Your task to perform on an android device: turn on priority inbox in the gmail app Image 0: 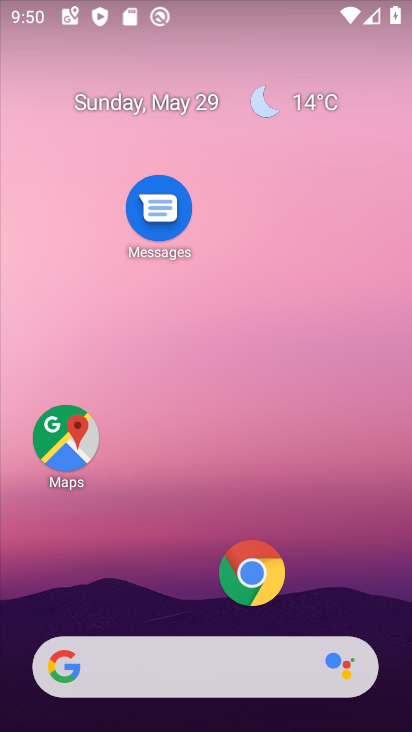
Step 0: drag from (148, 599) to (186, 41)
Your task to perform on an android device: turn on priority inbox in the gmail app Image 1: 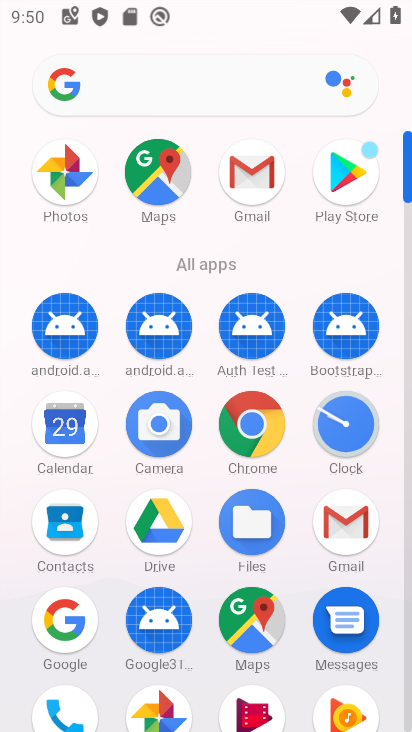
Step 1: click (266, 196)
Your task to perform on an android device: turn on priority inbox in the gmail app Image 2: 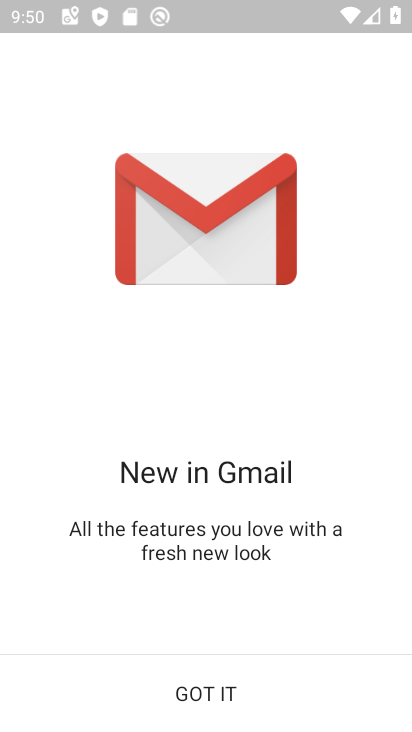
Step 2: click (213, 706)
Your task to perform on an android device: turn on priority inbox in the gmail app Image 3: 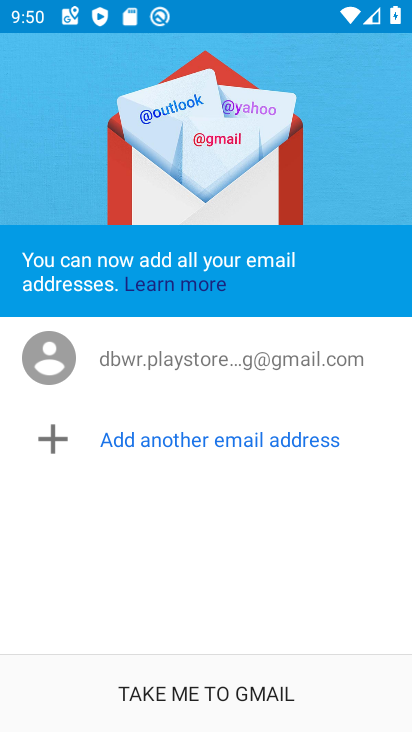
Step 3: click (213, 706)
Your task to perform on an android device: turn on priority inbox in the gmail app Image 4: 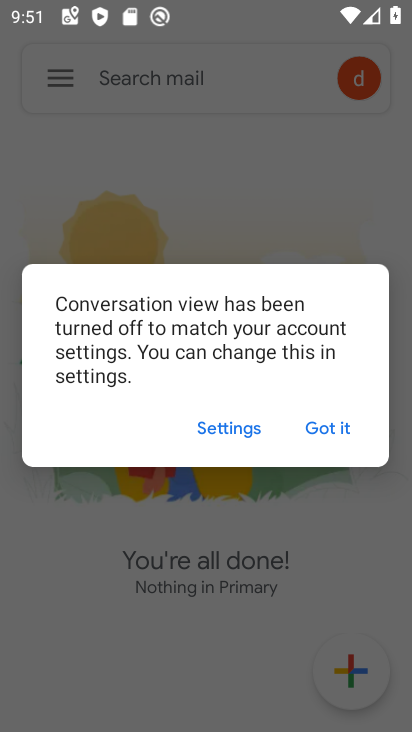
Step 4: click (330, 443)
Your task to perform on an android device: turn on priority inbox in the gmail app Image 5: 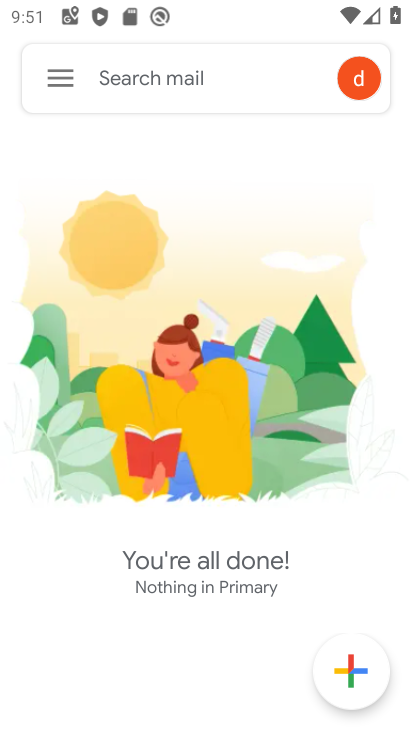
Step 5: click (65, 77)
Your task to perform on an android device: turn on priority inbox in the gmail app Image 6: 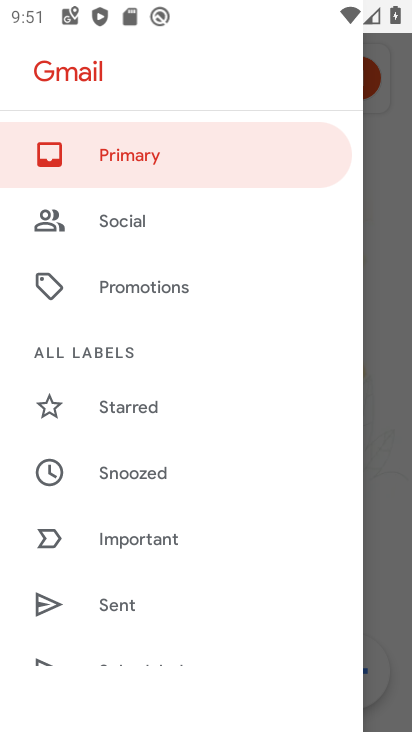
Step 6: drag from (126, 644) to (173, 257)
Your task to perform on an android device: turn on priority inbox in the gmail app Image 7: 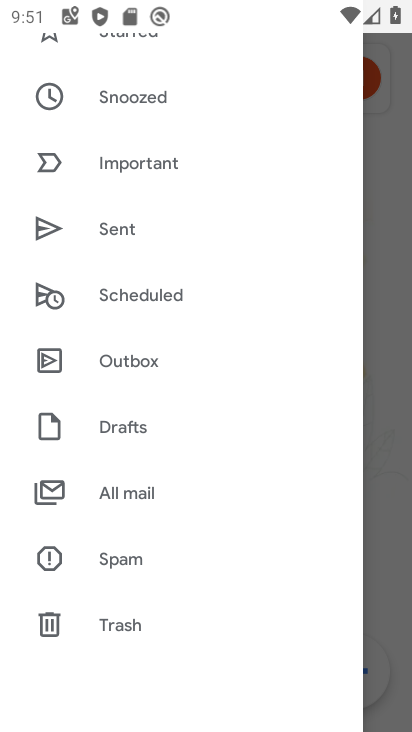
Step 7: drag from (193, 166) to (238, 675)
Your task to perform on an android device: turn on priority inbox in the gmail app Image 8: 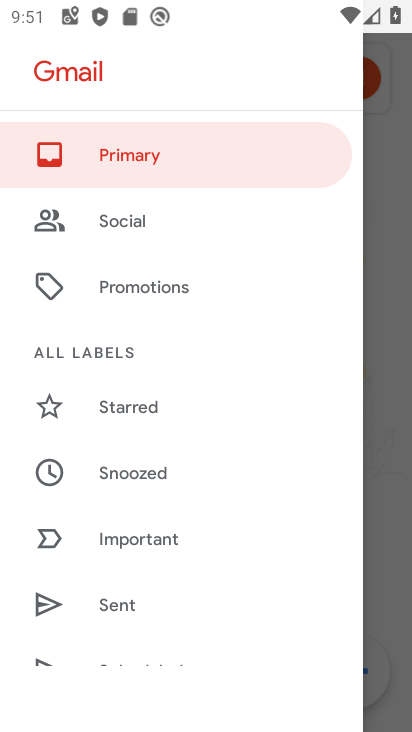
Step 8: drag from (140, 640) to (188, 228)
Your task to perform on an android device: turn on priority inbox in the gmail app Image 9: 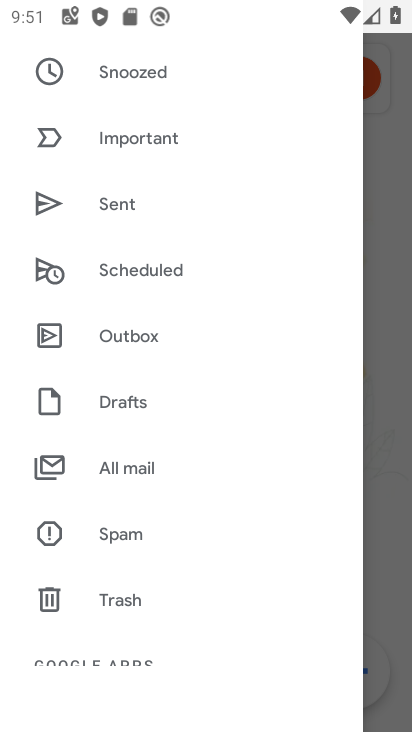
Step 9: drag from (126, 618) to (193, 32)
Your task to perform on an android device: turn on priority inbox in the gmail app Image 10: 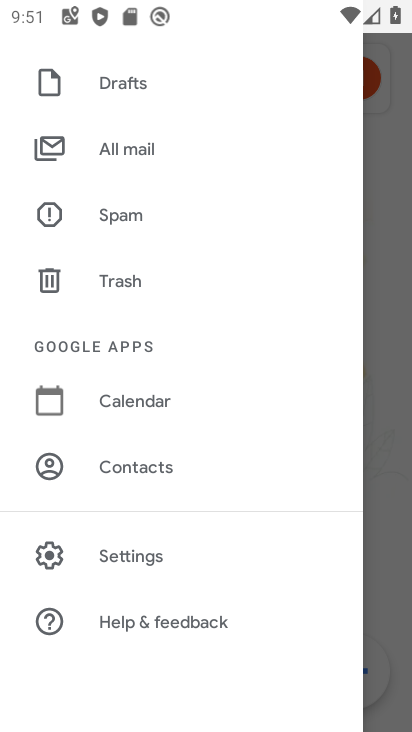
Step 10: click (128, 562)
Your task to perform on an android device: turn on priority inbox in the gmail app Image 11: 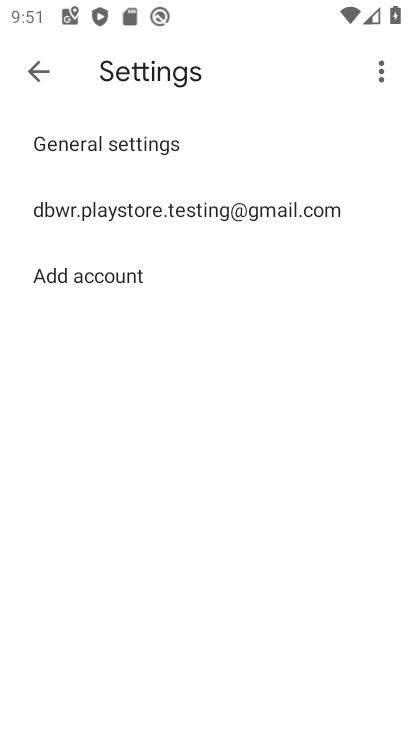
Step 11: click (221, 237)
Your task to perform on an android device: turn on priority inbox in the gmail app Image 12: 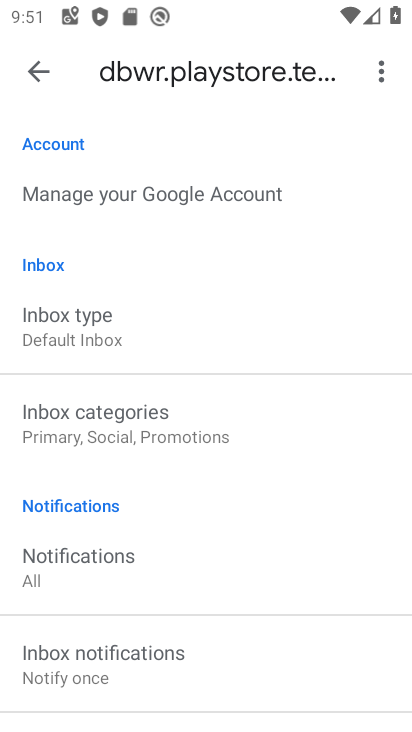
Step 12: click (134, 334)
Your task to perform on an android device: turn on priority inbox in the gmail app Image 13: 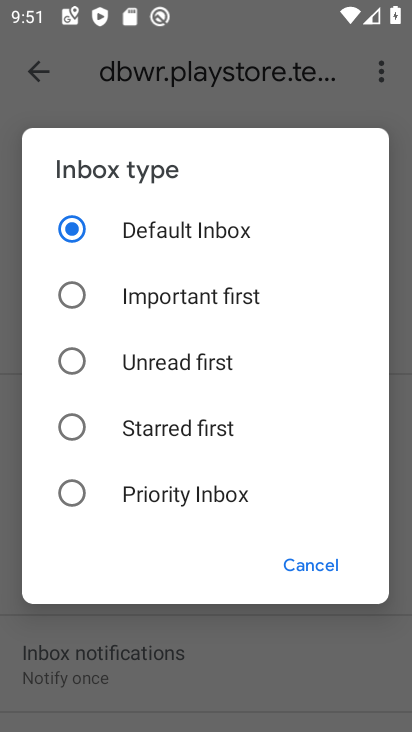
Step 13: click (146, 501)
Your task to perform on an android device: turn on priority inbox in the gmail app Image 14: 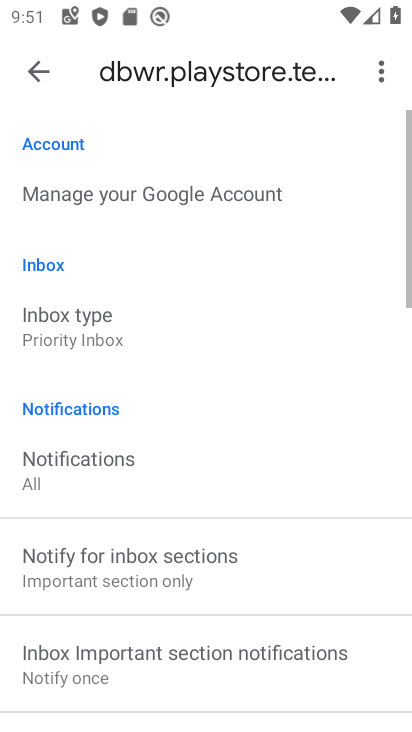
Step 14: task complete